Your task to perform on an android device: change notification settings in the gmail app Image 0: 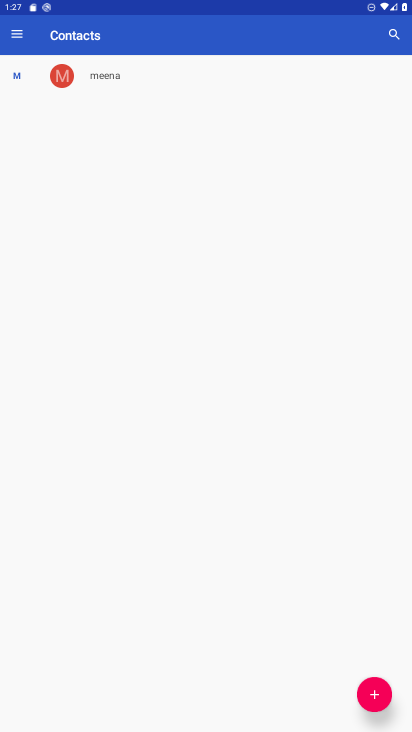
Step 0: press home button
Your task to perform on an android device: change notification settings in the gmail app Image 1: 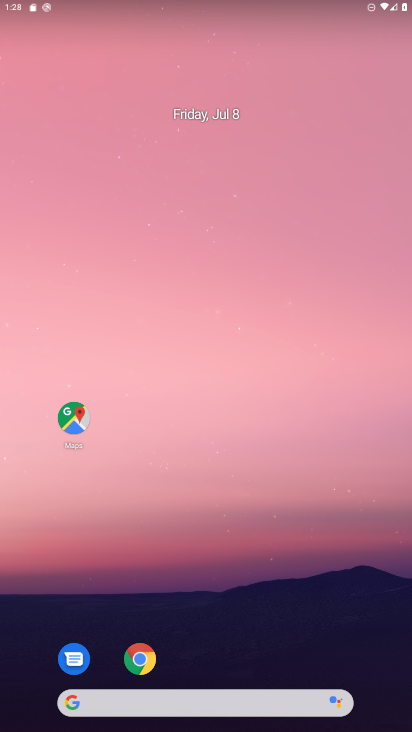
Step 1: drag from (239, 645) to (214, 68)
Your task to perform on an android device: change notification settings in the gmail app Image 2: 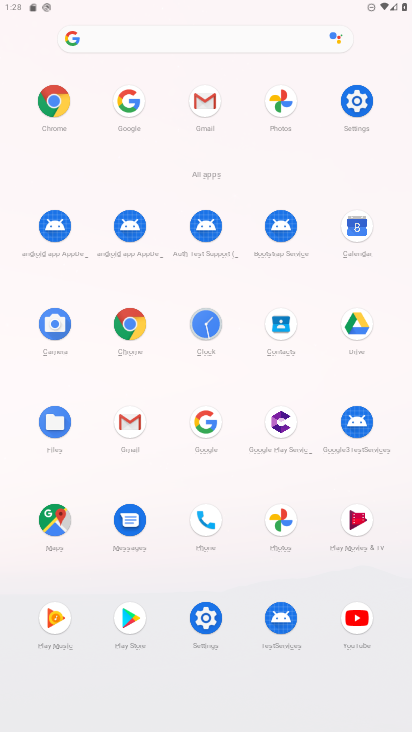
Step 2: click (203, 99)
Your task to perform on an android device: change notification settings in the gmail app Image 3: 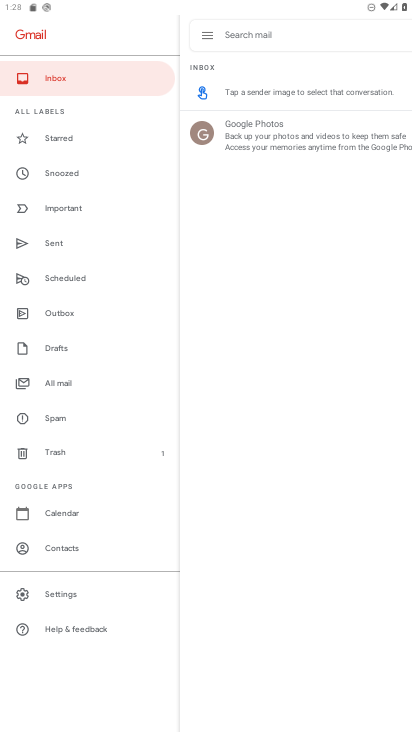
Step 3: click (59, 598)
Your task to perform on an android device: change notification settings in the gmail app Image 4: 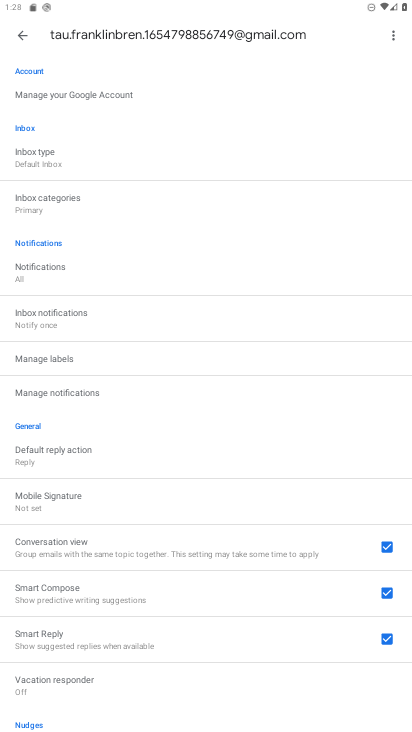
Step 4: drag from (78, 625) to (111, 517)
Your task to perform on an android device: change notification settings in the gmail app Image 5: 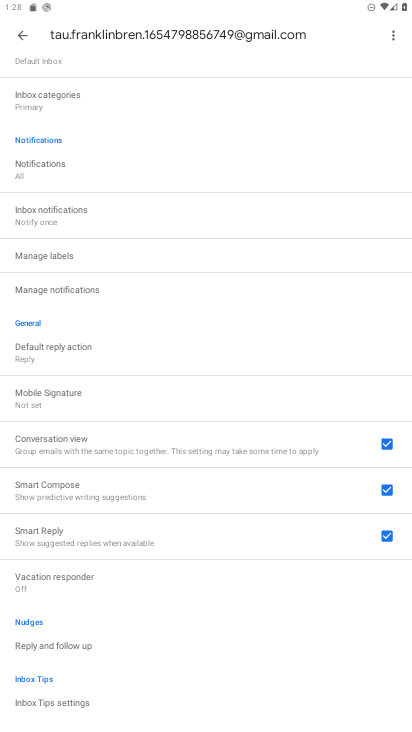
Step 5: drag from (110, 595) to (116, 497)
Your task to perform on an android device: change notification settings in the gmail app Image 6: 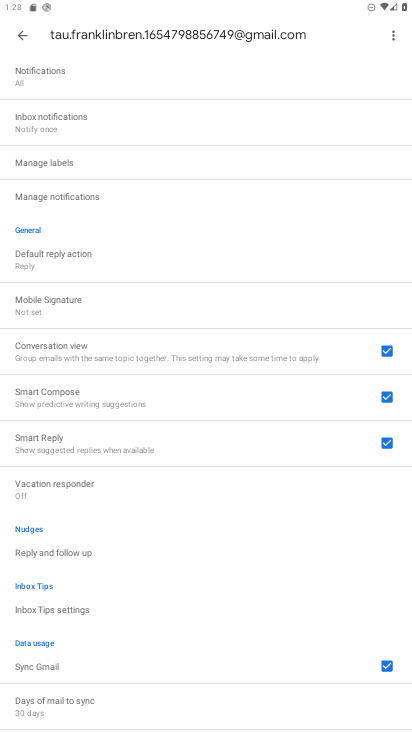
Step 6: drag from (131, 286) to (124, 346)
Your task to perform on an android device: change notification settings in the gmail app Image 7: 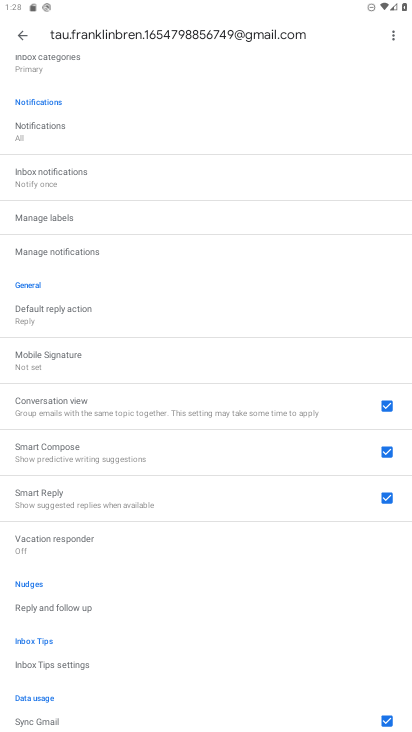
Step 7: click (92, 255)
Your task to perform on an android device: change notification settings in the gmail app Image 8: 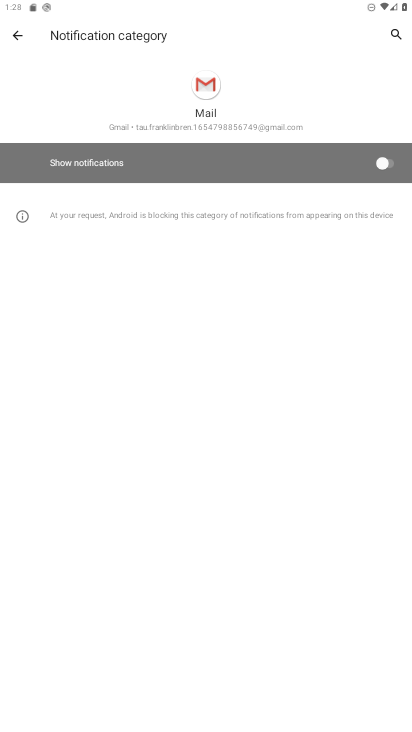
Step 8: click (384, 163)
Your task to perform on an android device: change notification settings in the gmail app Image 9: 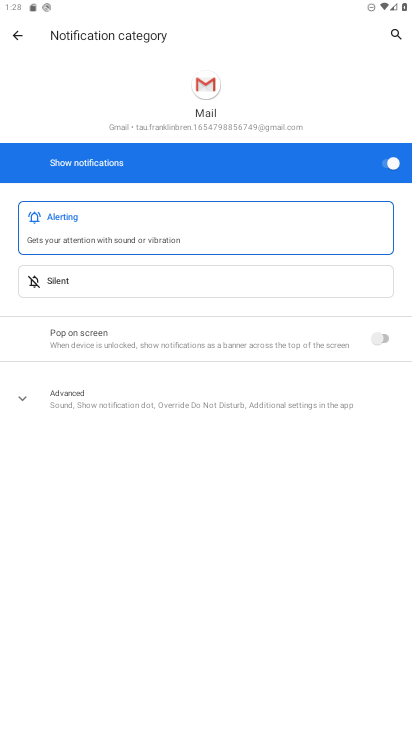
Step 9: task complete